Your task to perform on an android device: change the clock display to analog Image 0: 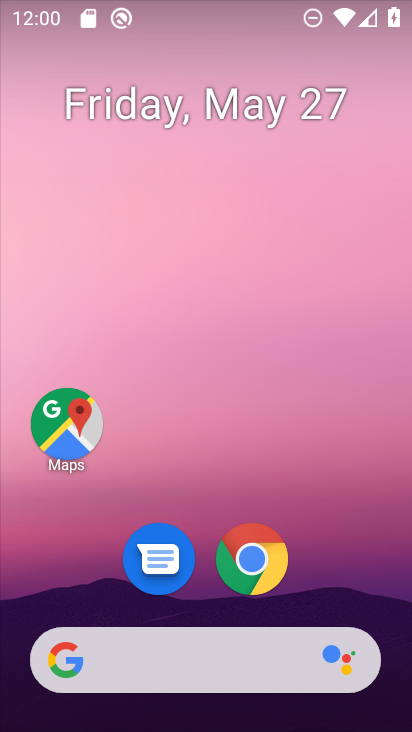
Step 0: drag from (316, 529) to (340, 128)
Your task to perform on an android device: change the clock display to analog Image 1: 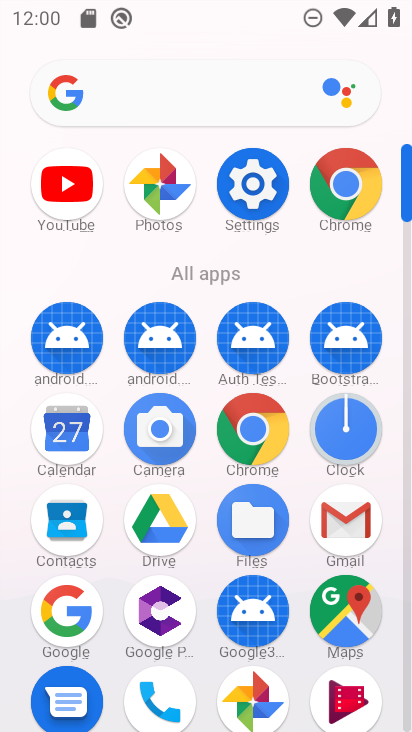
Step 1: click (242, 181)
Your task to perform on an android device: change the clock display to analog Image 2: 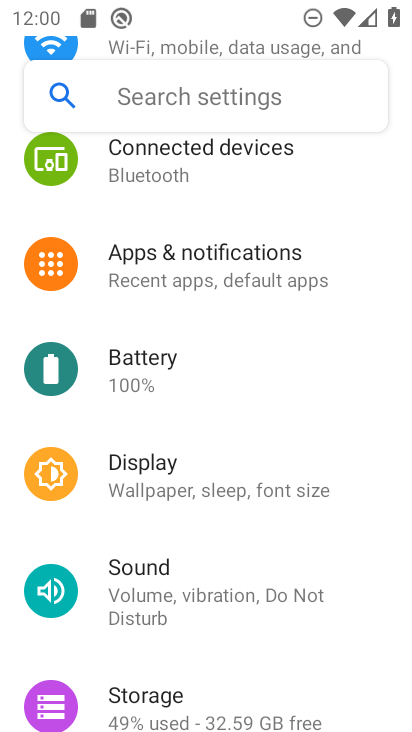
Step 2: drag from (149, 218) to (165, 590)
Your task to perform on an android device: change the clock display to analog Image 3: 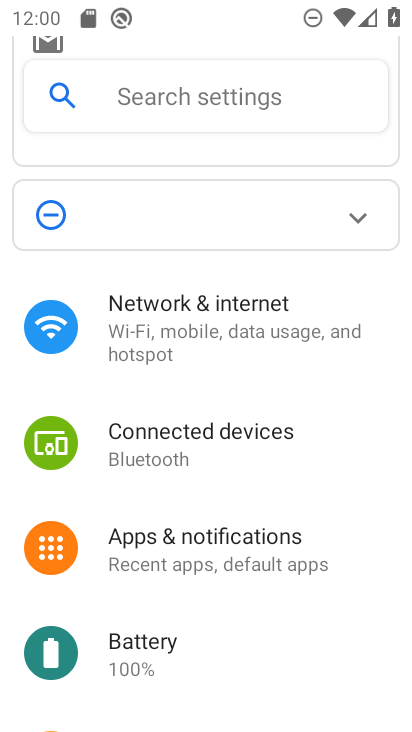
Step 3: drag from (233, 621) to (277, 309)
Your task to perform on an android device: change the clock display to analog Image 4: 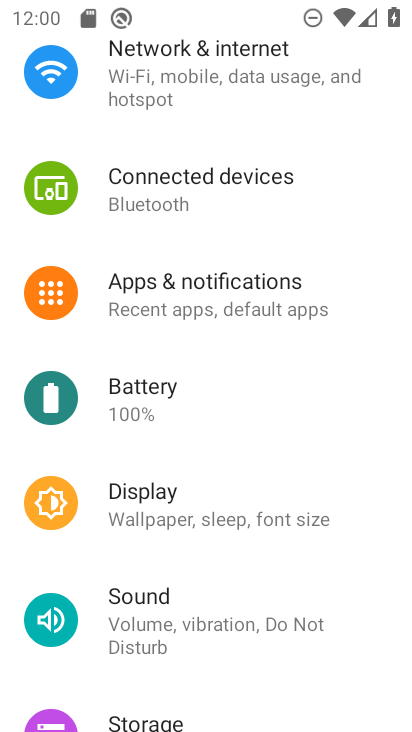
Step 4: press home button
Your task to perform on an android device: change the clock display to analog Image 5: 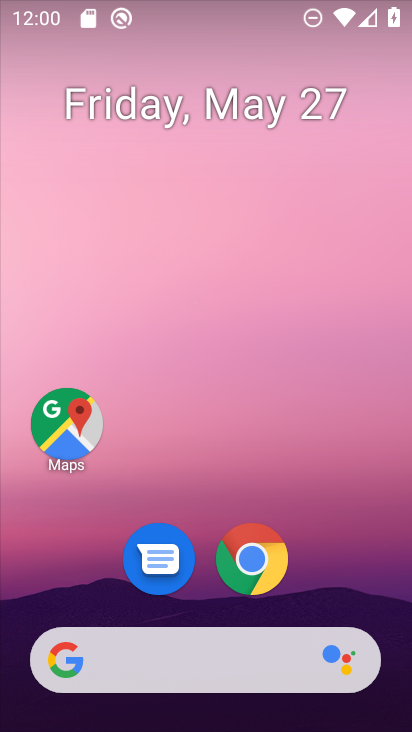
Step 5: drag from (280, 574) to (277, 78)
Your task to perform on an android device: change the clock display to analog Image 6: 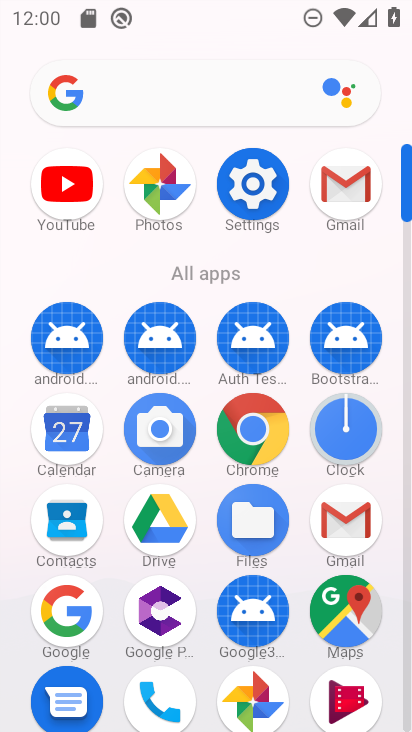
Step 6: click (344, 414)
Your task to perform on an android device: change the clock display to analog Image 7: 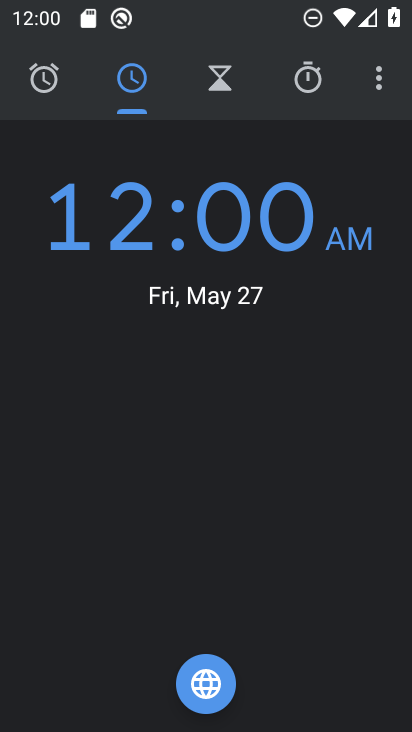
Step 7: click (385, 64)
Your task to perform on an android device: change the clock display to analog Image 8: 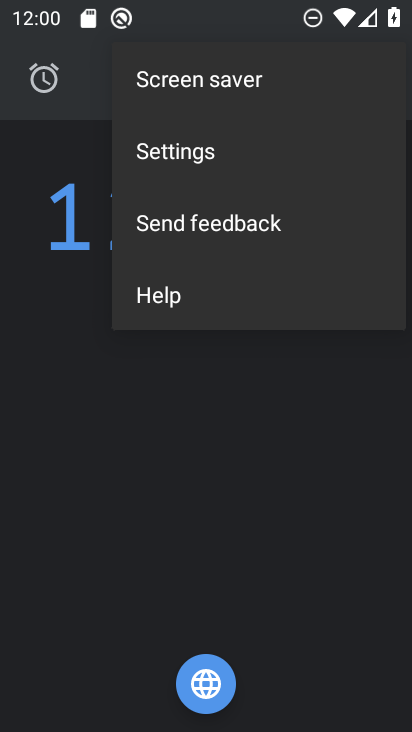
Step 8: click (315, 151)
Your task to perform on an android device: change the clock display to analog Image 9: 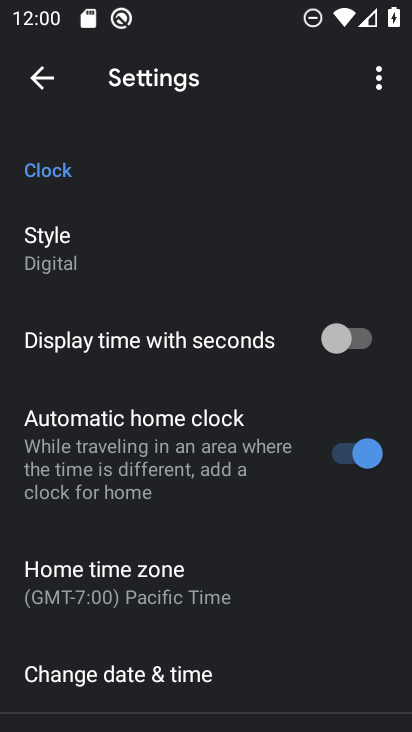
Step 9: click (117, 268)
Your task to perform on an android device: change the clock display to analog Image 10: 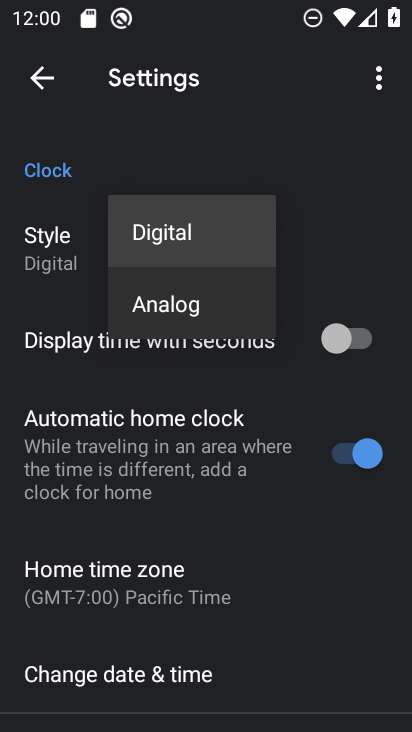
Step 10: click (188, 284)
Your task to perform on an android device: change the clock display to analog Image 11: 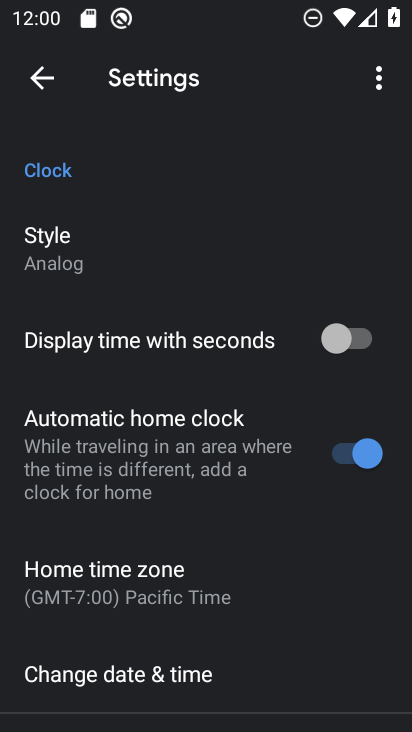
Step 11: task complete